Your task to perform on an android device: What is the recent news? Image 0: 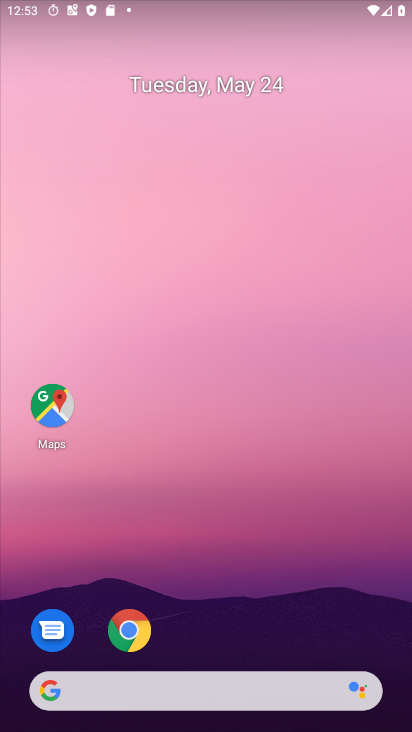
Step 0: click (84, 698)
Your task to perform on an android device: What is the recent news? Image 1: 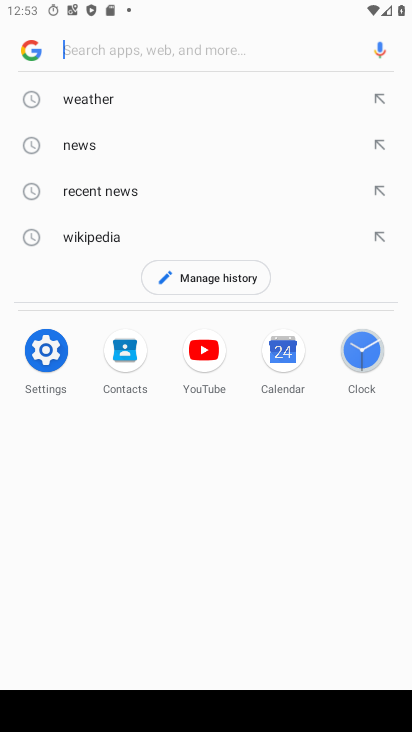
Step 1: click (78, 194)
Your task to perform on an android device: What is the recent news? Image 2: 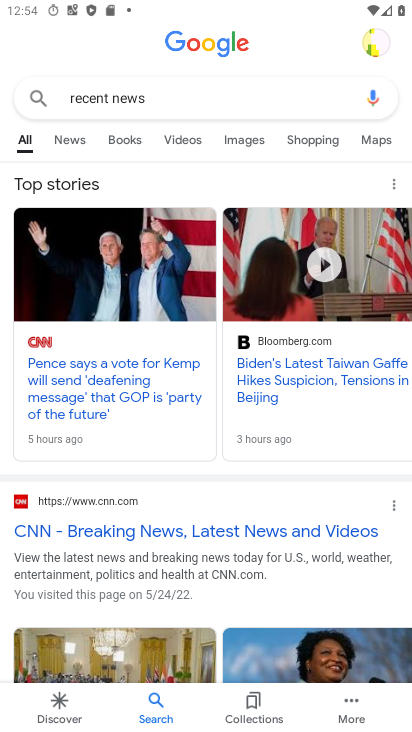
Step 2: click (68, 140)
Your task to perform on an android device: What is the recent news? Image 3: 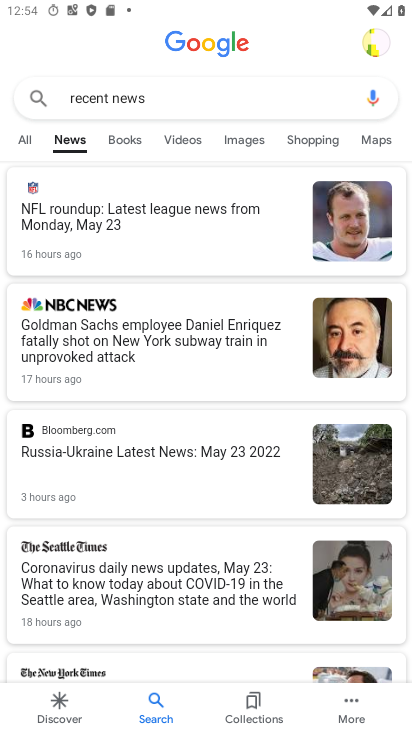
Step 3: click (60, 450)
Your task to perform on an android device: What is the recent news? Image 4: 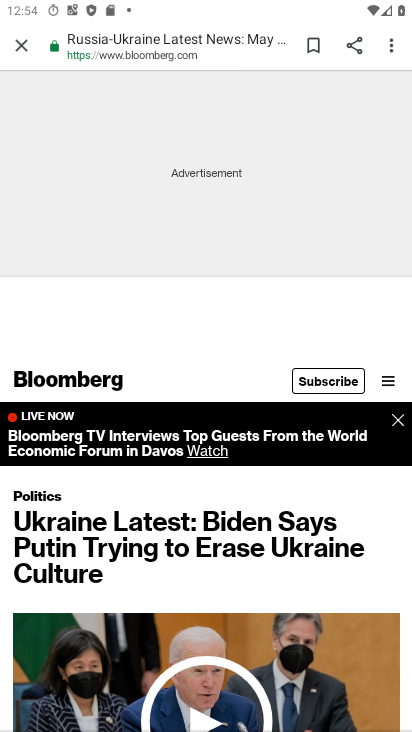
Step 4: task complete